Your task to perform on an android device: check google app version Image 0: 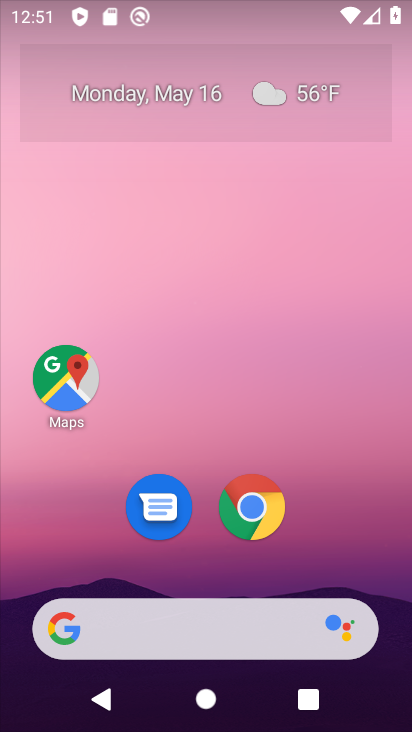
Step 0: drag from (199, 591) to (185, 206)
Your task to perform on an android device: check google app version Image 1: 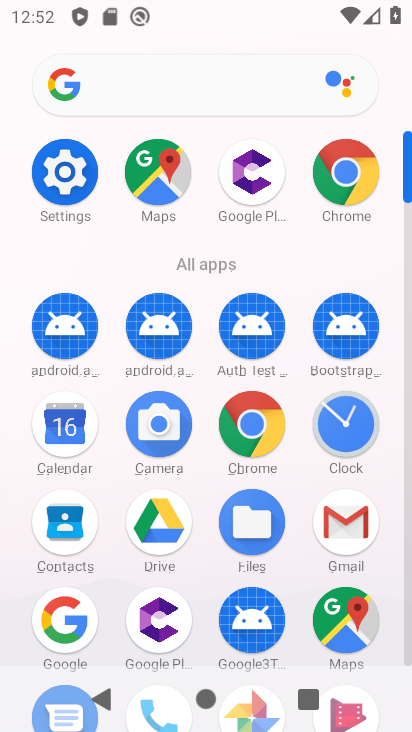
Step 1: click (71, 594)
Your task to perform on an android device: check google app version Image 2: 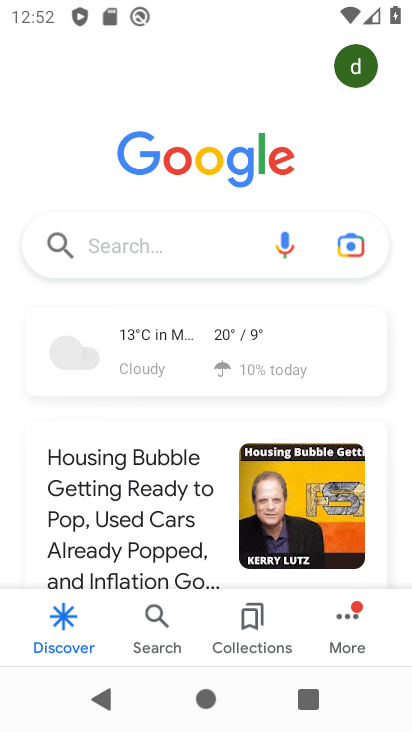
Step 2: click (340, 629)
Your task to perform on an android device: check google app version Image 3: 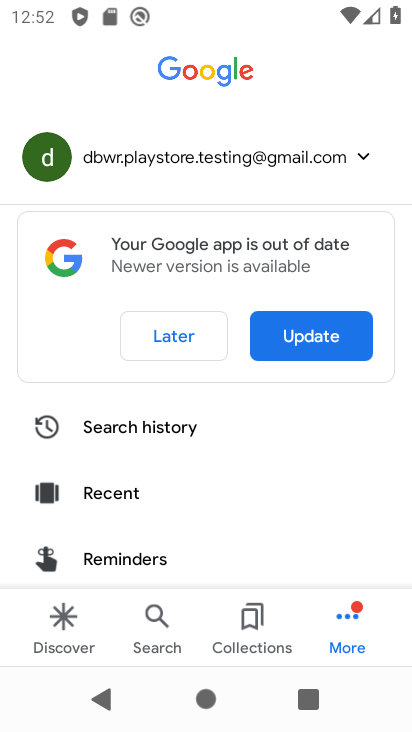
Step 3: drag from (137, 558) to (183, 393)
Your task to perform on an android device: check google app version Image 4: 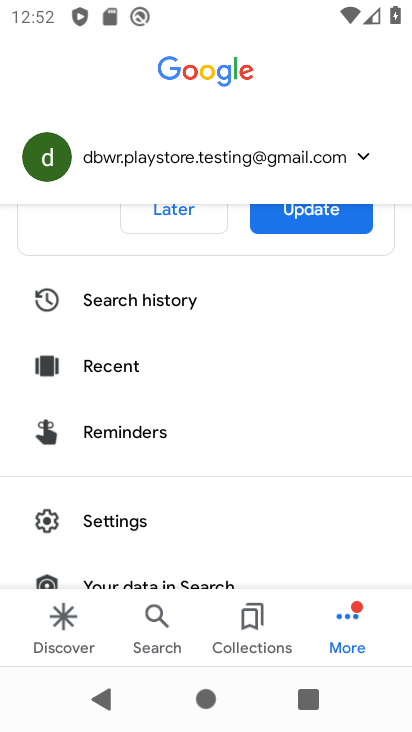
Step 4: drag from (209, 511) to (194, 225)
Your task to perform on an android device: check google app version Image 5: 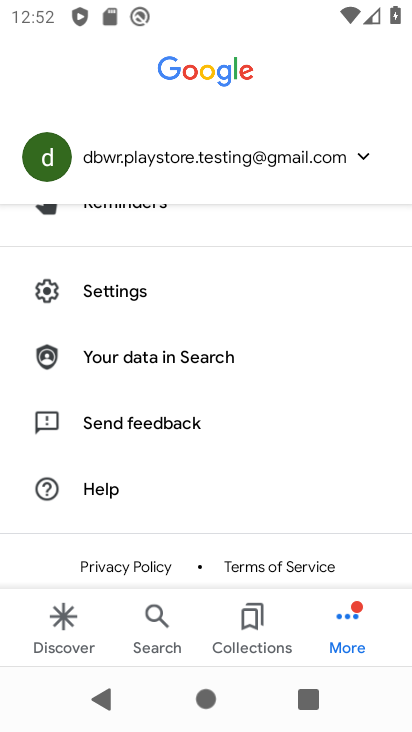
Step 5: click (125, 296)
Your task to perform on an android device: check google app version Image 6: 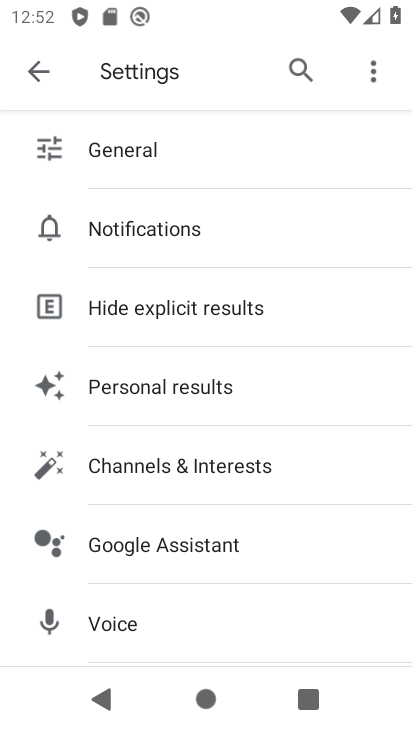
Step 6: drag from (190, 592) to (199, 255)
Your task to perform on an android device: check google app version Image 7: 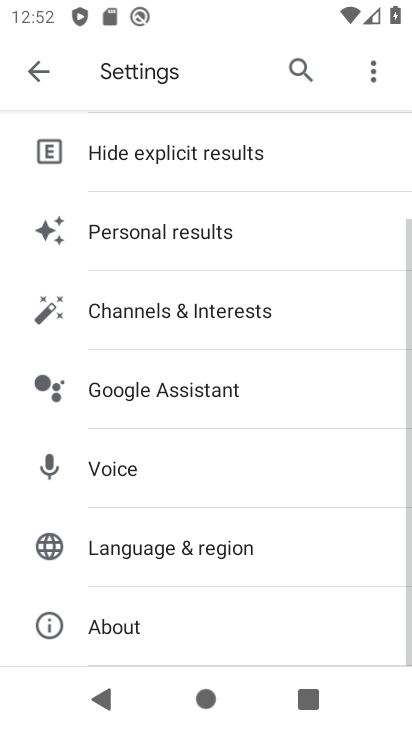
Step 7: drag from (146, 552) to (170, 386)
Your task to perform on an android device: check google app version Image 8: 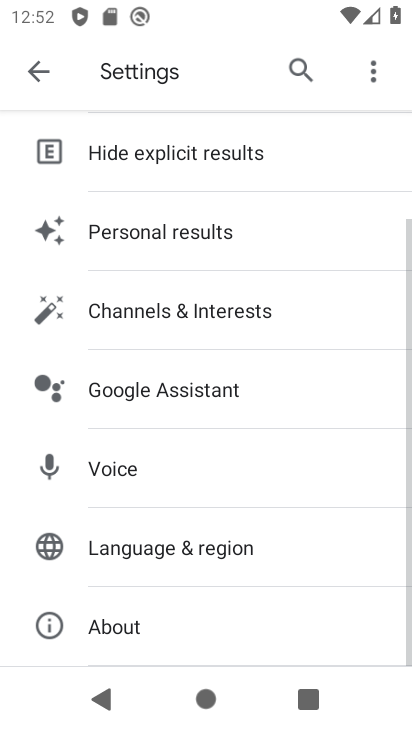
Step 8: click (142, 629)
Your task to perform on an android device: check google app version Image 9: 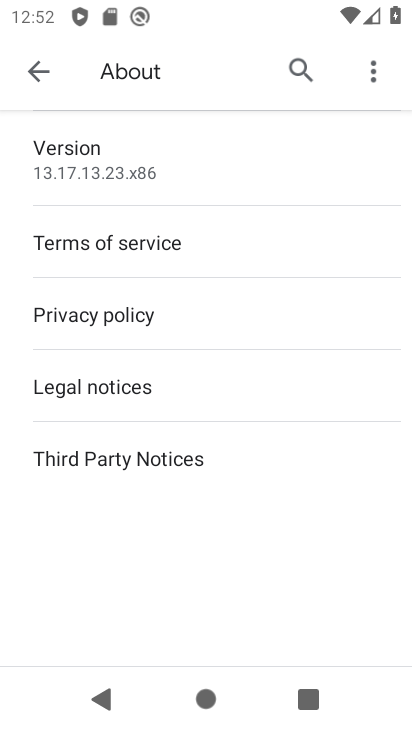
Step 9: click (109, 162)
Your task to perform on an android device: check google app version Image 10: 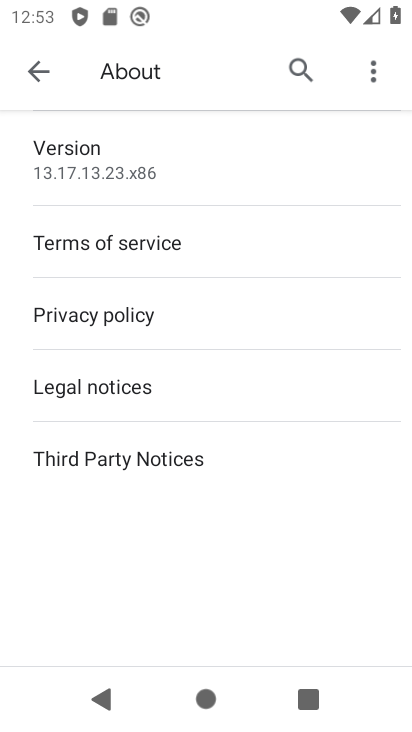
Step 10: click (155, 182)
Your task to perform on an android device: check google app version Image 11: 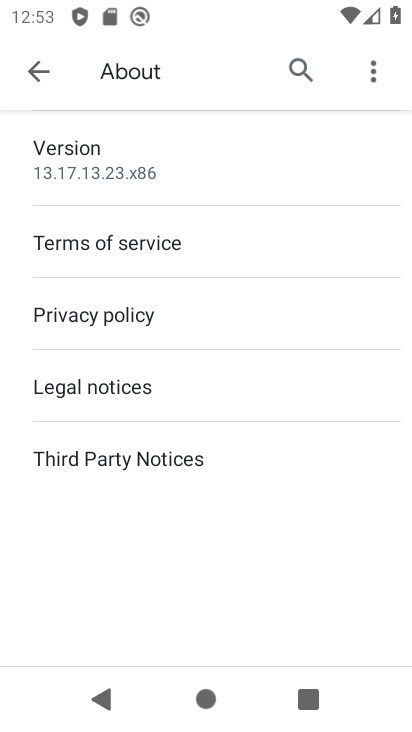
Step 11: click (217, 186)
Your task to perform on an android device: check google app version Image 12: 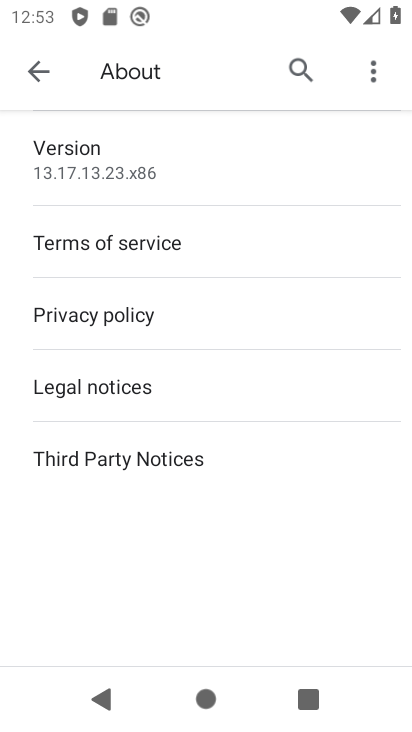
Step 12: task complete